Your task to perform on an android device: check the backup settings in the google photos Image 0: 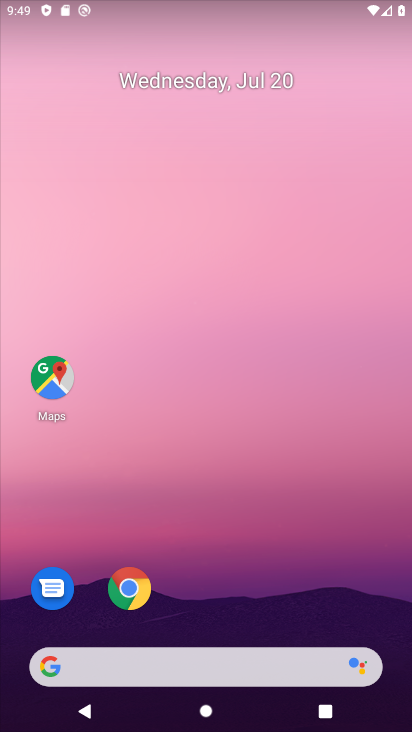
Step 0: drag from (375, 614) to (352, 73)
Your task to perform on an android device: check the backup settings in the google photos Image 1: 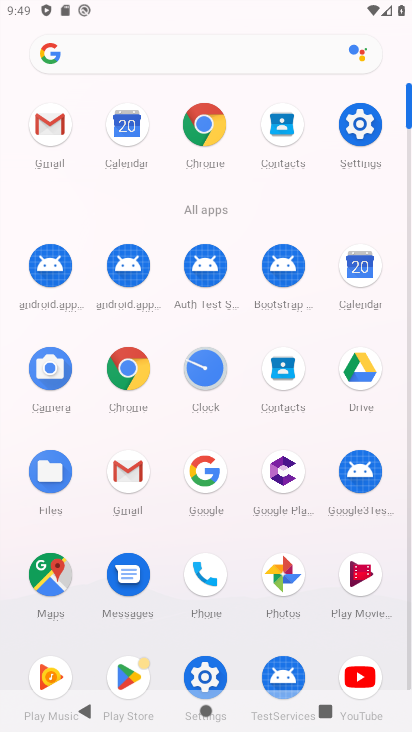
Step 1: click (281, 572)
Your task to perform on an android device: check the backup settings in the google photos Image 2: 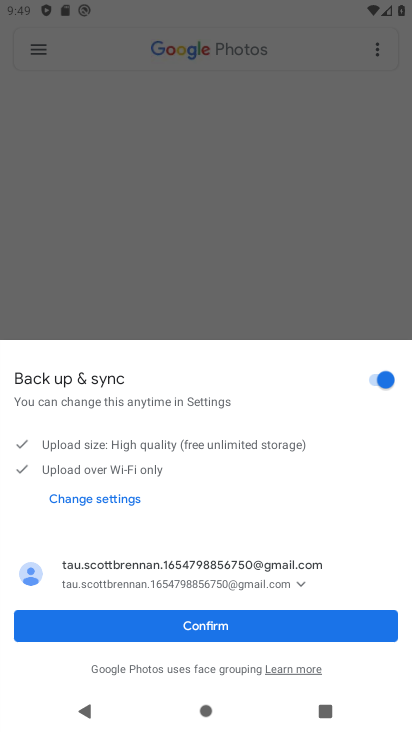
Step 2: click (203, 628)
Your task to perform on an android device: check the backup settings in the google photos Image 3: 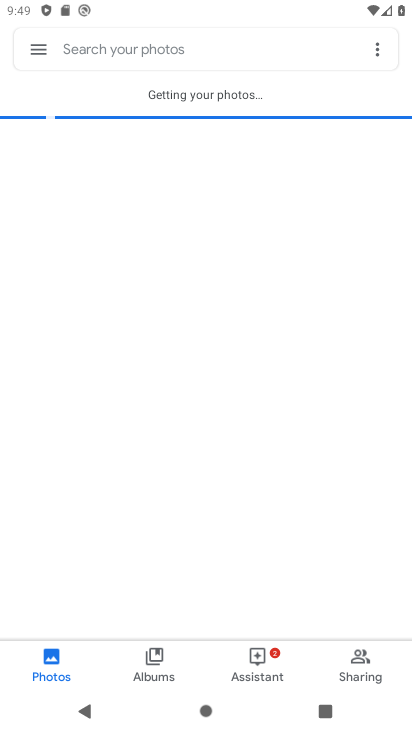
Step 3: click (42, 50)
Your task to perform on an android device: check the backup settings in the google photos Image 4: 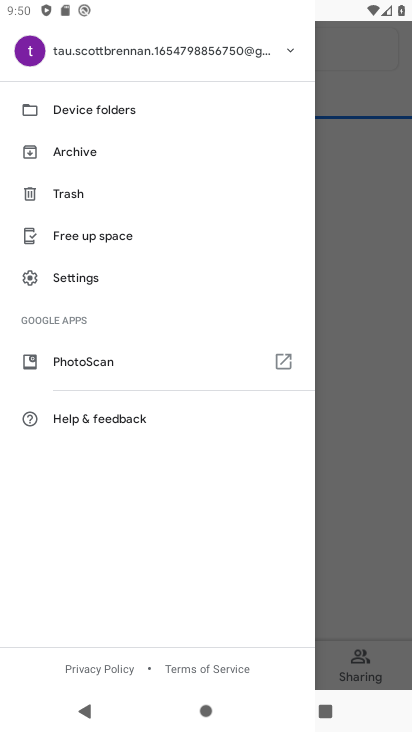
Step 4: click (76, 288)
Your task to perform on an android device: check the backup settings in the google photos Image 5: 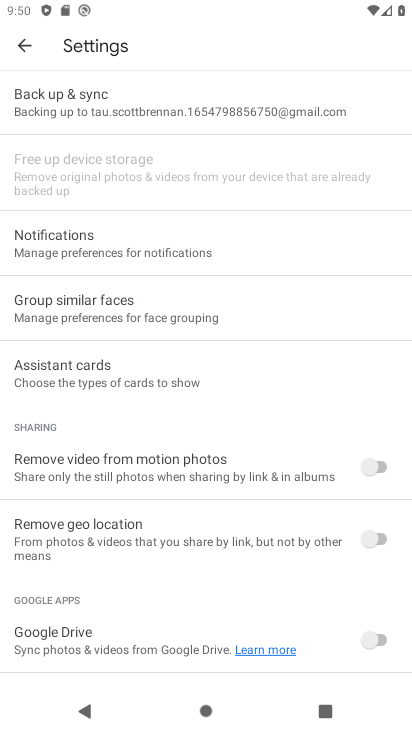
Step 5: click (86, 101)
Your task to perform on an android device: check the backup settings in the google photos Image 6: 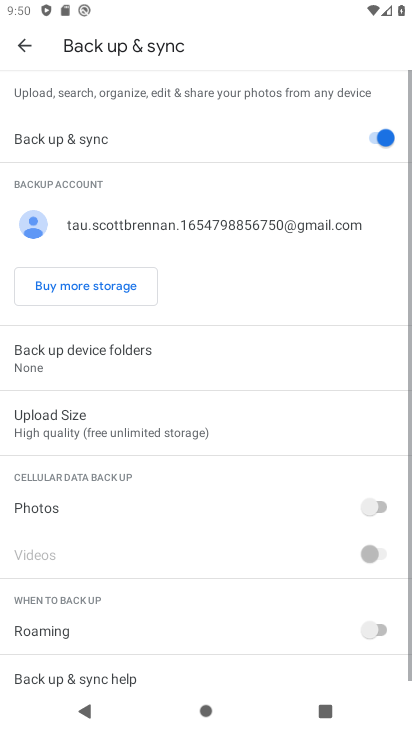
Step 6: task complete